Your task to perform on an android device: What's the weather? Image 0: 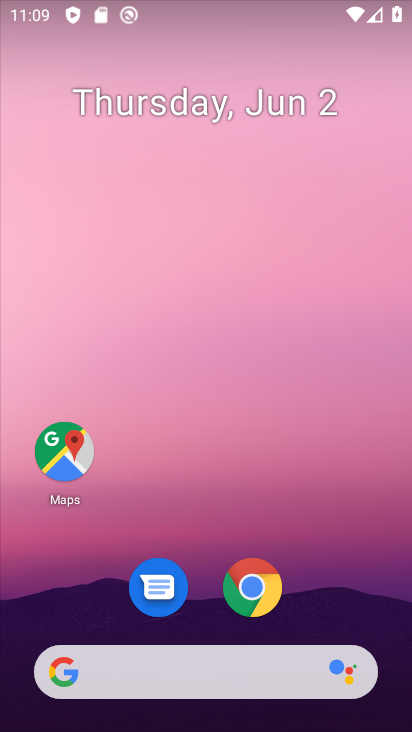
Step 0: click (205, 680)
Your task to perform on an android device: What's the weather? Image 1: 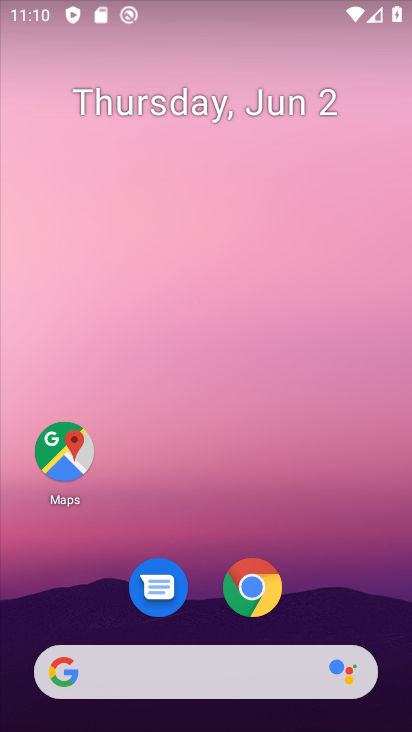
Step 1: click (205, 680)
Your task to perform on an android device: What's the weather? Image 2: 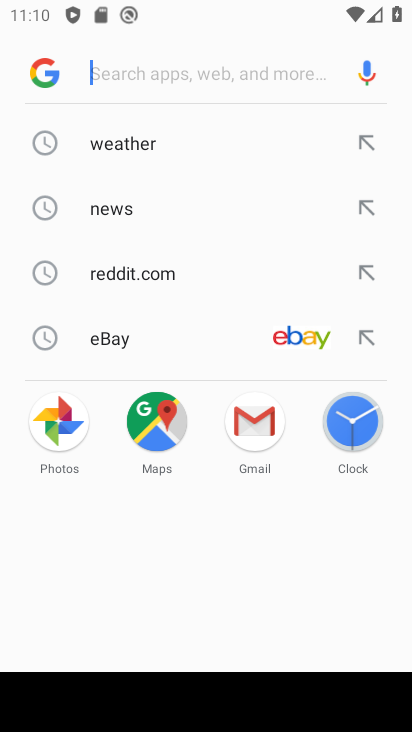
Step 2: click (116, 148)
Your task to perform on an android device: What's the weather? Image 3: 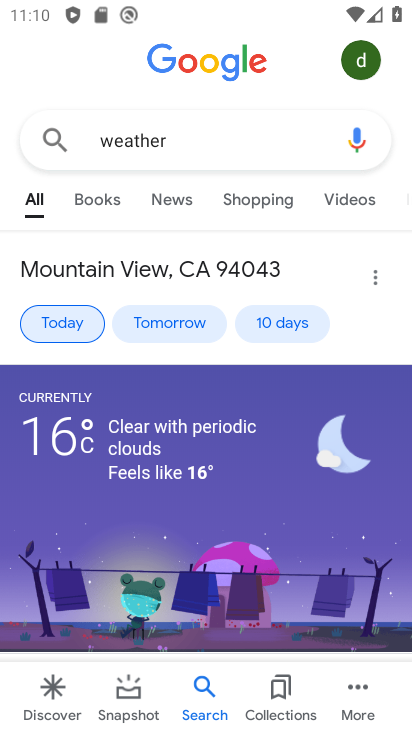
Step 3: task complete